Your task to perform on an android device: Open Youtube and go to "Your channel" Image 0: 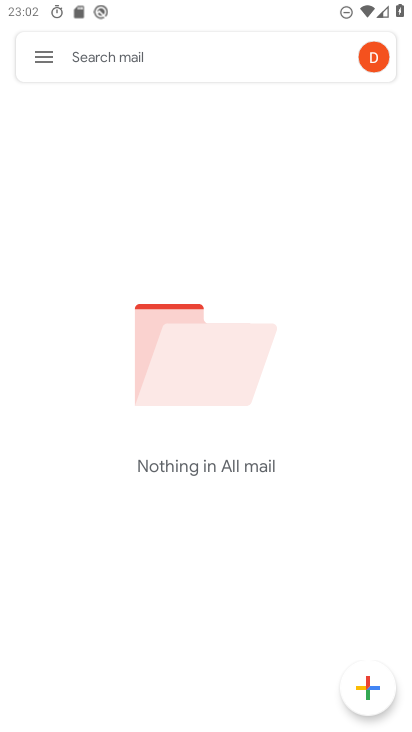
Step 0: drag from (240, 591) to (390, 297)
Your task to perform on an android device: Open Youtube and go to "Your channel" Image 1: 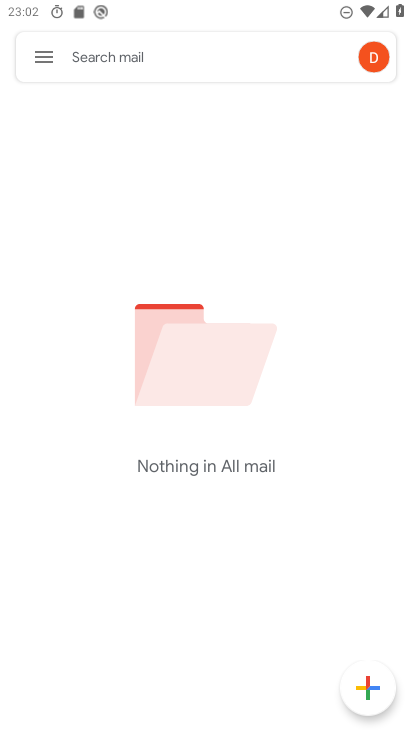
Step 1: press home button
Your task to perform on an android device: Open Youtube and go to "Your channel" Image 2: 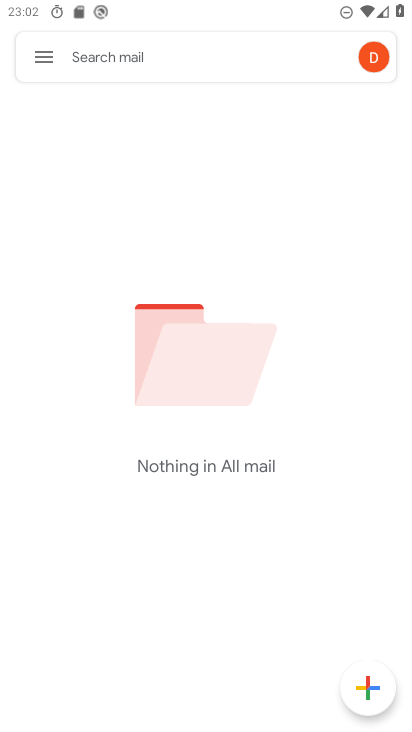
Step 2: click (404, 320)
Your task to perform on an android device: Open Youtube and go to "Your channel" Image 3: 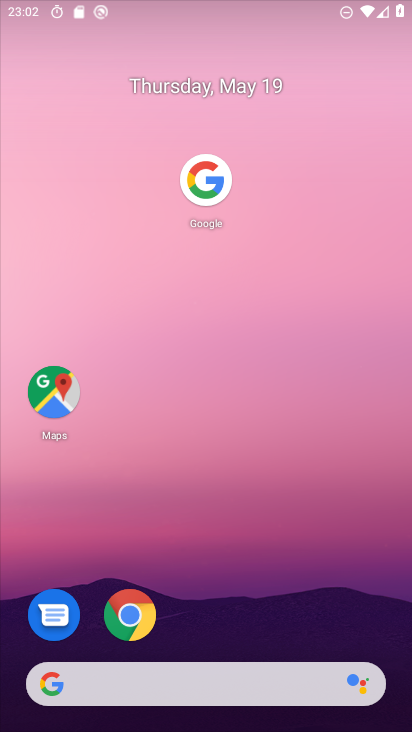
Step 3: drag from (217, 577) to (237, 43)
Your task to perform on an android device: Open Youtube and go to "Your channel" Image 4: 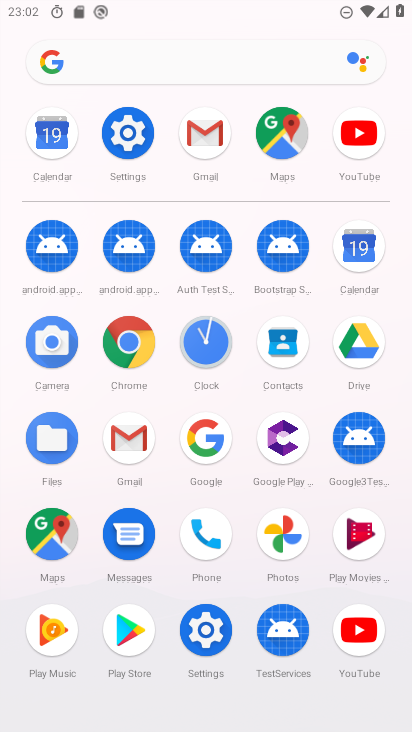
Step 4: click (363, 127)
Your task to perform on an android device: Open Youtube and go to "Your channel" Image 5: 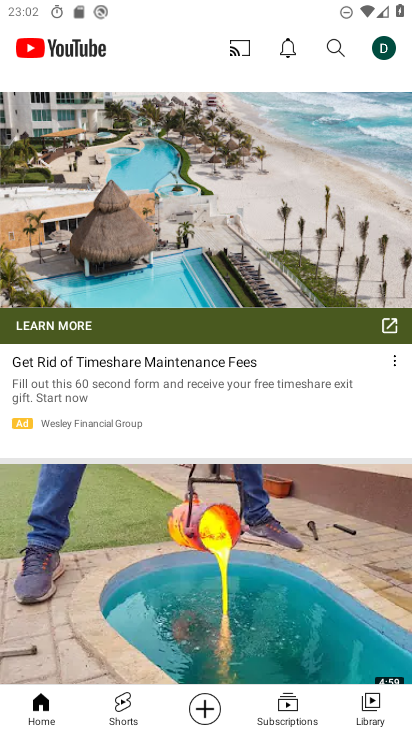
Step 5: click (386, 50)
Your task to perform on an android device: Open Youtube and go to "Your channel" Image 6: 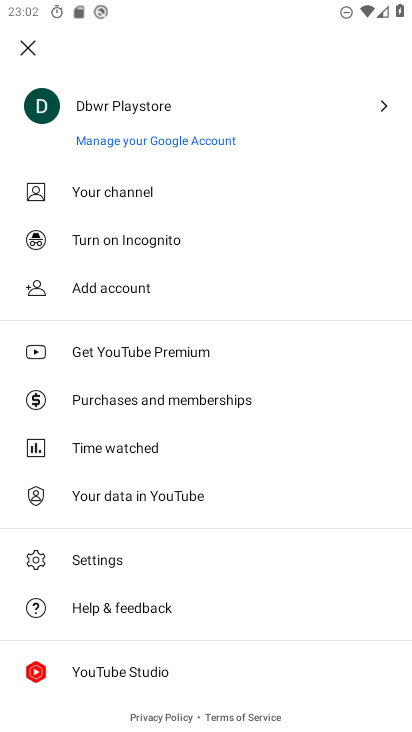
Step 6: click (128, 204)
Your task to perform on an android device: Open Youtube and go to "Your channel" Image 7: 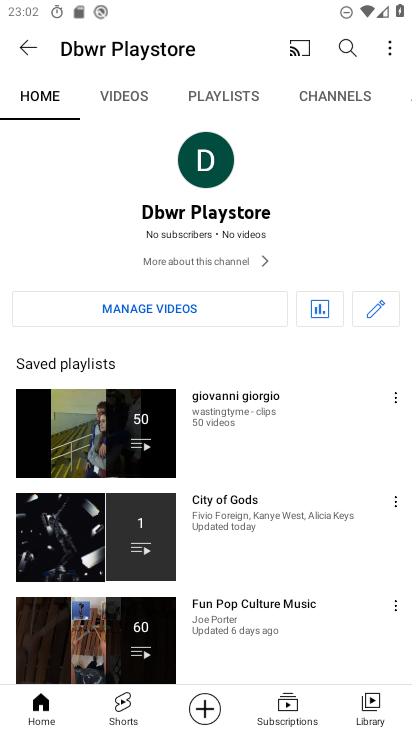
Step 7: task complete